Your task to perform on an android device: Open eBay Image 0: 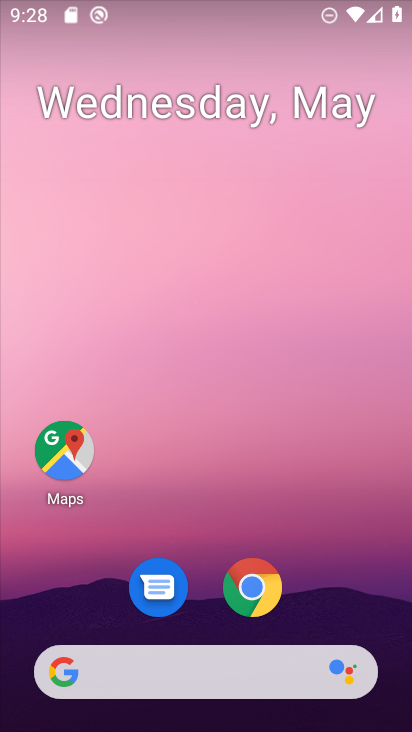
Step 0: drag from (201, 726) to (184, 59)
Your task to perform on an android device: Open eBay Image 1: 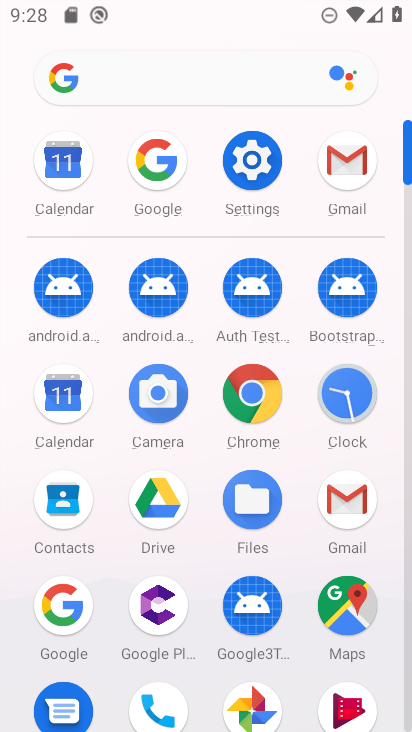
Step 1: click (245, 398)
Your task to perform on an android device: Open eBay Image 2: 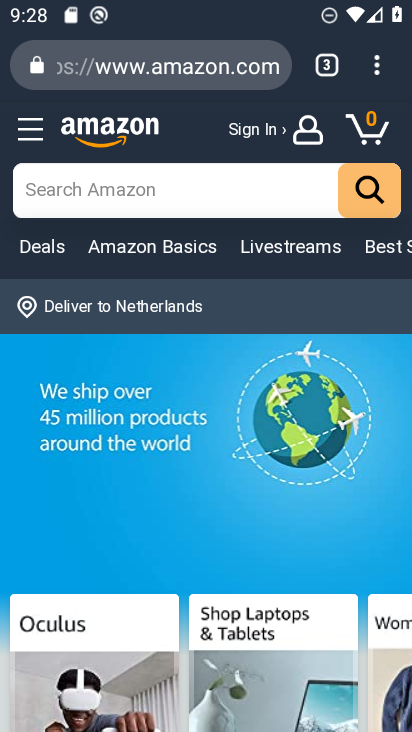
Step 2: click (378, 71)
Your task to perform on an android device: Open eBay Image 3: 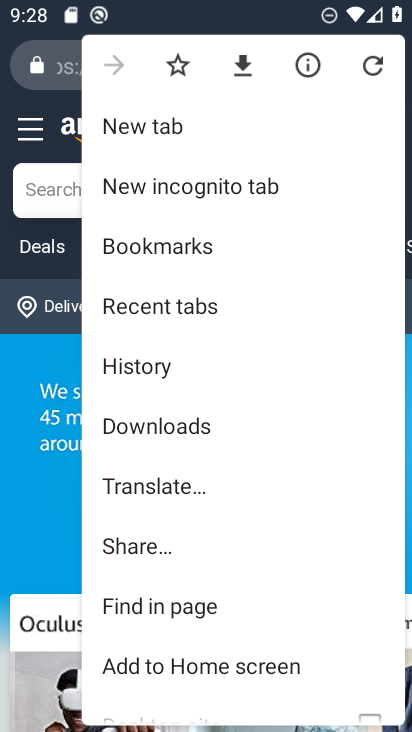
Step 3: click (143, 125)
Your task to perform on an android device: Open eBay Image 4: 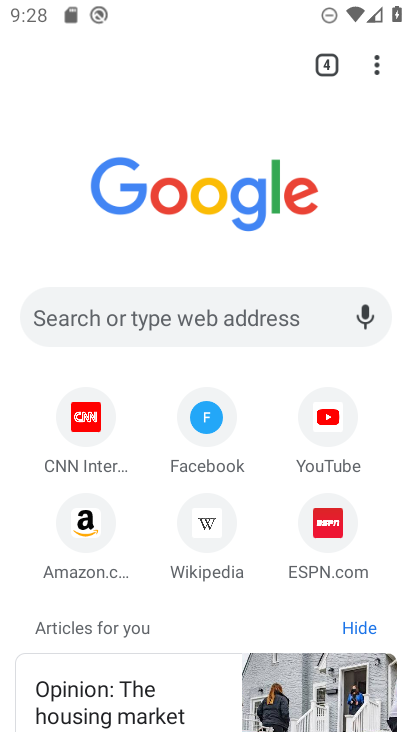
Step 4: click (180, 319)
Your task to perform on an android device: Open eBay Image 5: 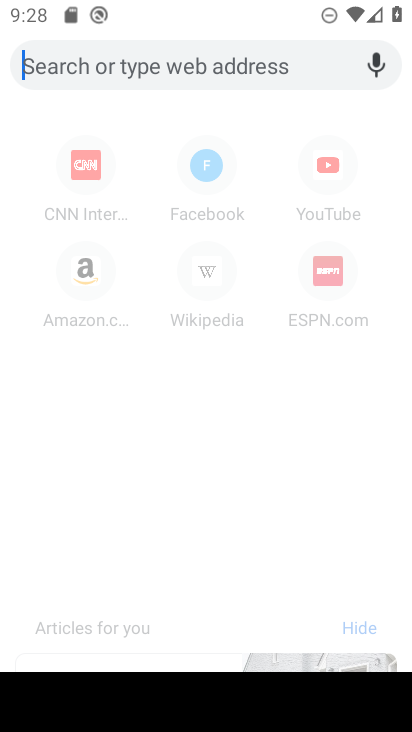
Step 5: type "eBay"
Your task to perform on an android device: Open eBay Image 6: 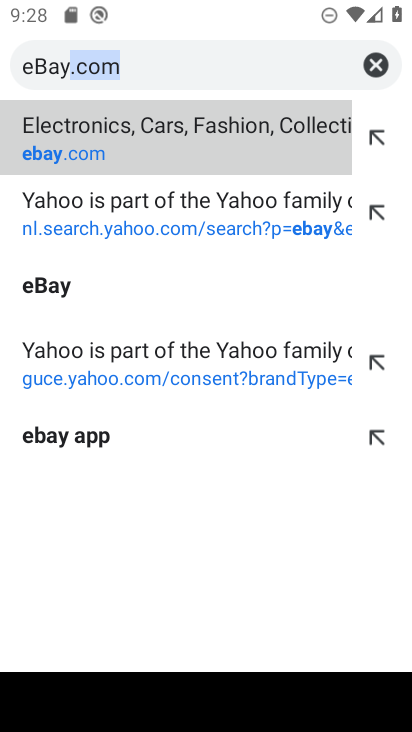
Step 6: click (81, 136)
Your task to perform on an android device: Open eBay Image 7: 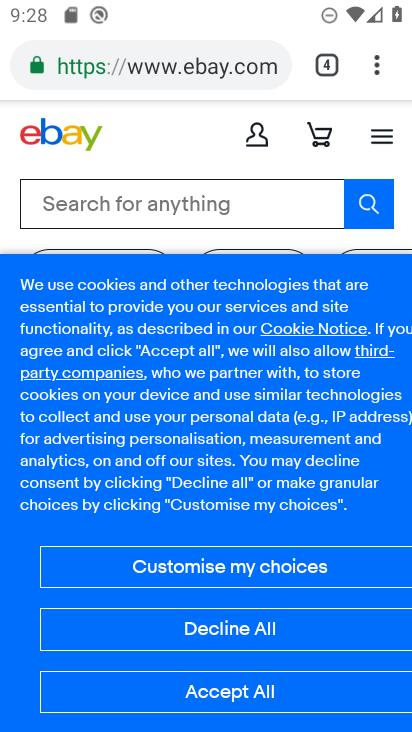
Step 7: task complete